Your task to perform on an android device: Open Reddit.com Image 0: 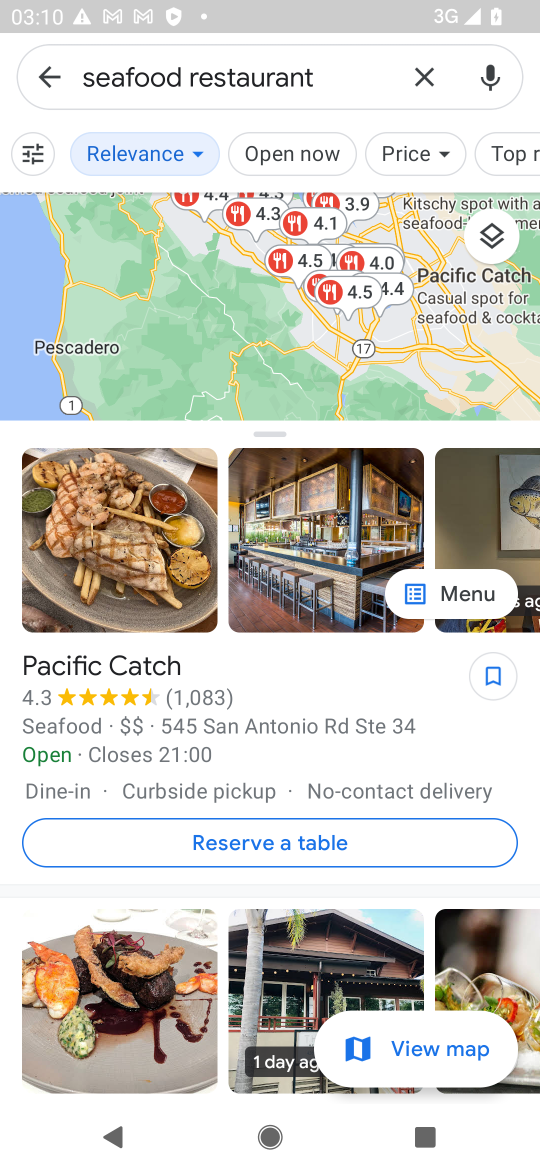
Step 0: press home button
Your task to perform on an android device: Open Reddit.com Image 1: 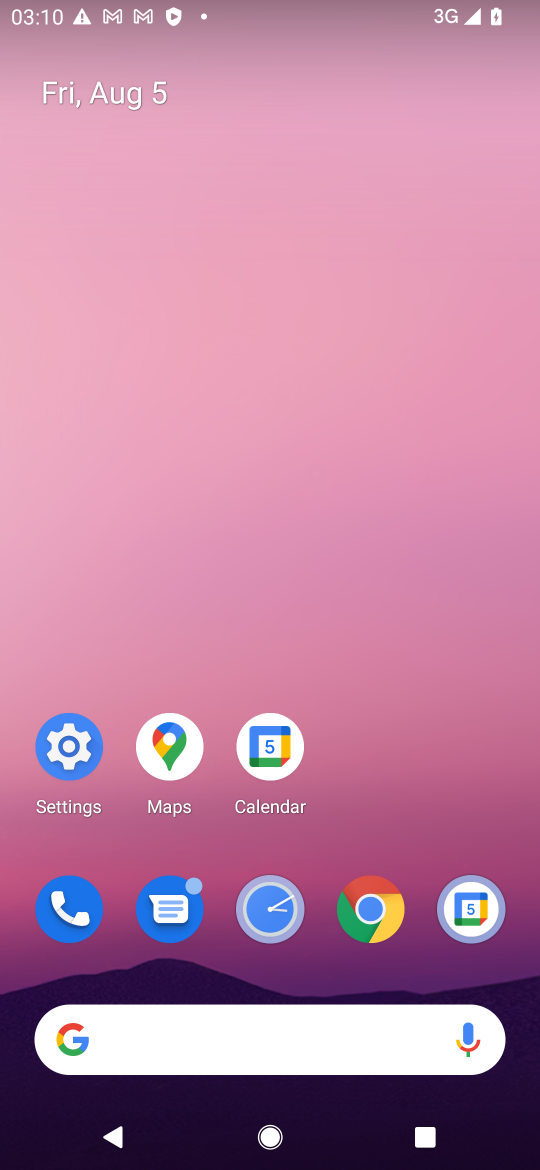
Step 1: click (364, 902)
Your task to perform on an android device: Open Reddit.com Image 2: 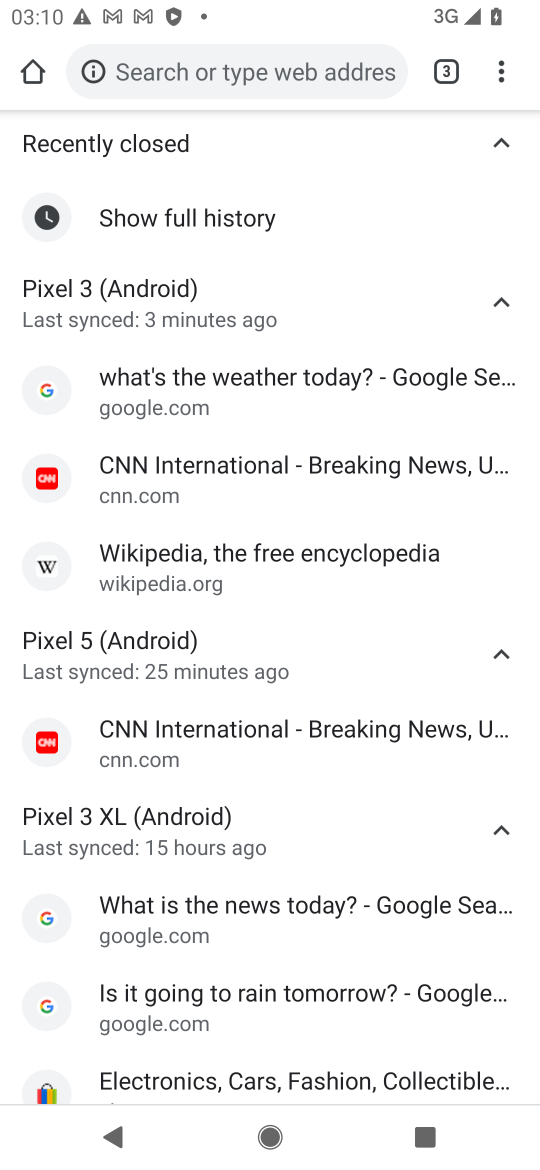
Step 2: click (511, 77)
Your task to perform on an android device: Open Reddit.com Image 3: 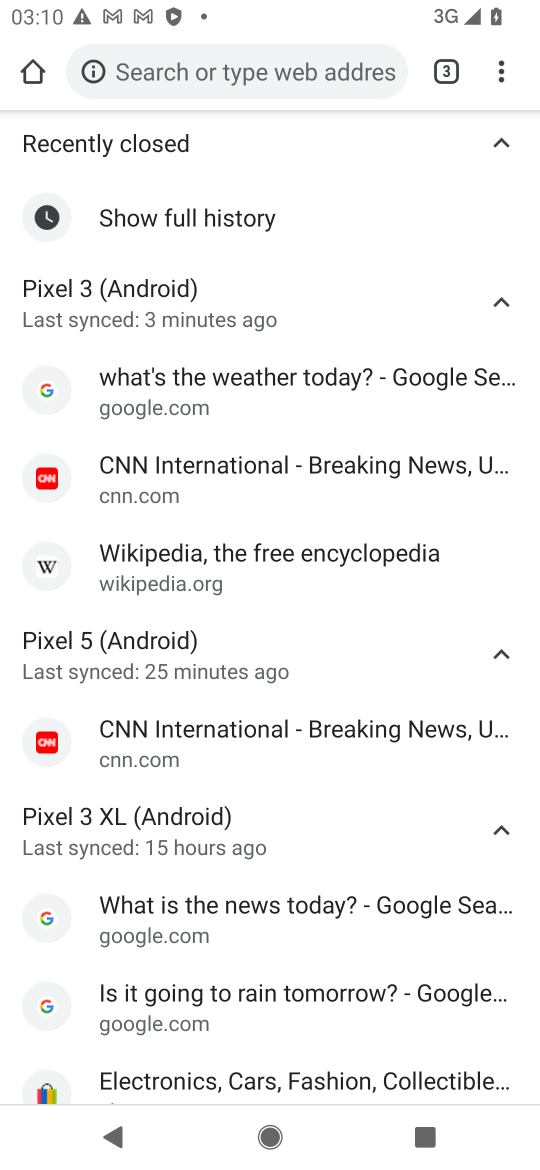
Step 3: click (498, 79)
Your task to perform on an android device: Open Reddit.com Image 4: 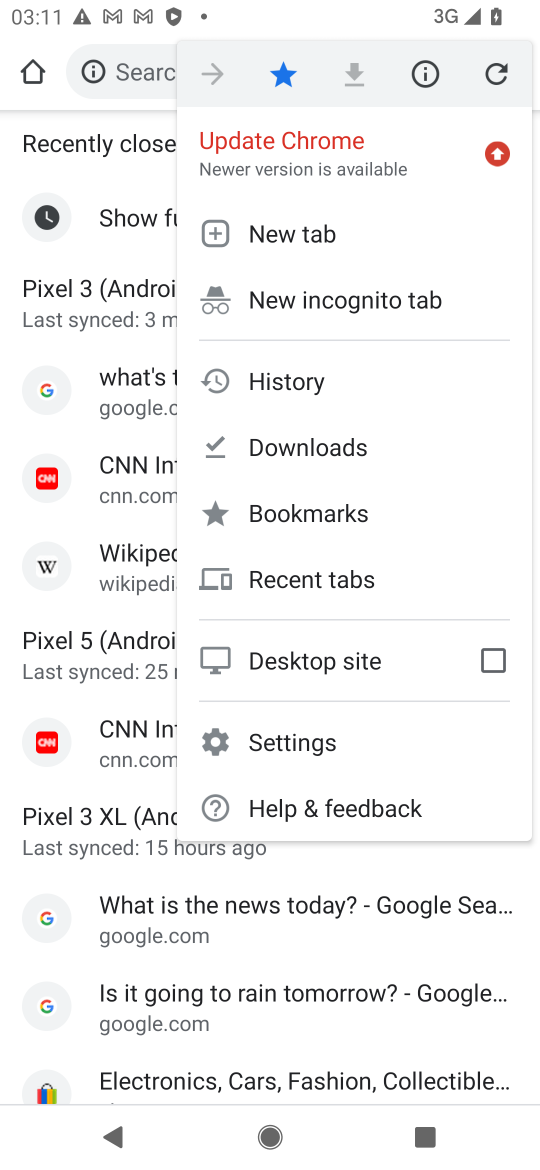
Step 4: click (262, 221)
Your task to perform on an android device: Open Reddit.com Image 5: 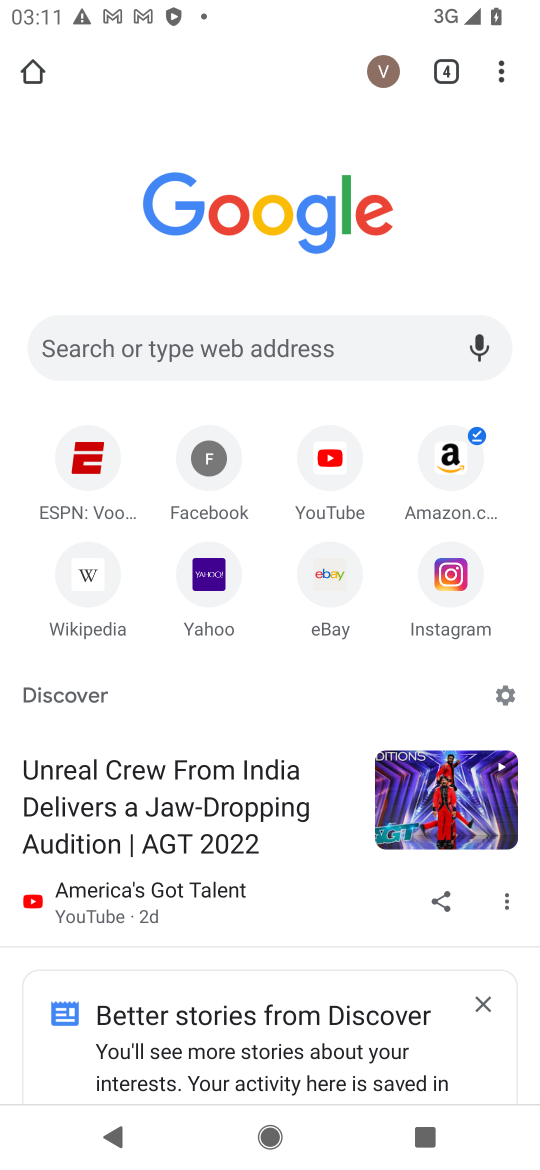
Step 5: click (259, 337)
Your task to perform on an android device: Open Reddit.com Image 6: 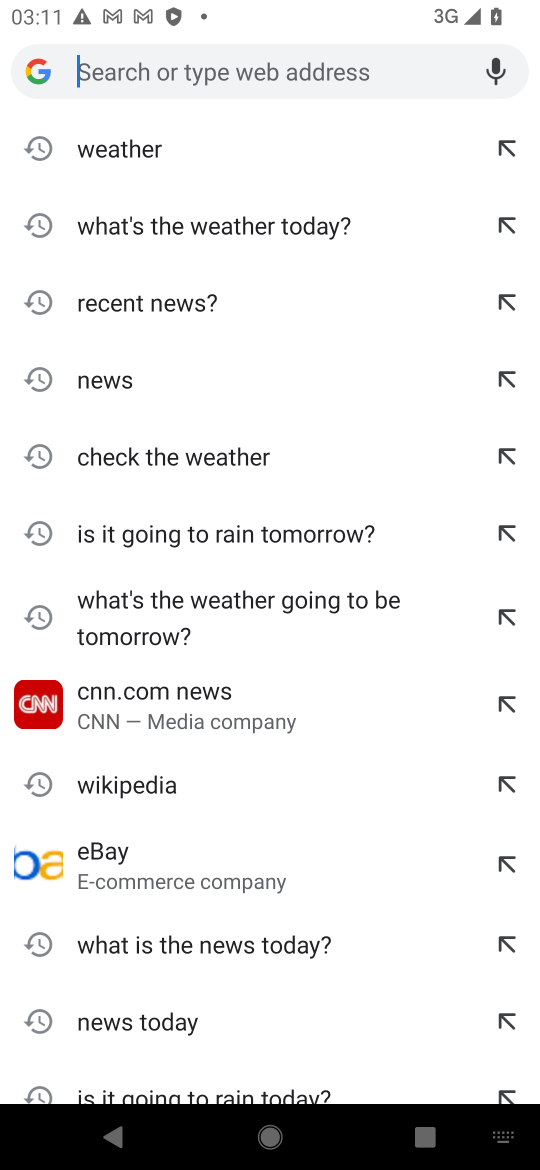
Step 6: type "reddit.com"
Your task to perform on an android device: Open Reddit.com Image 7: 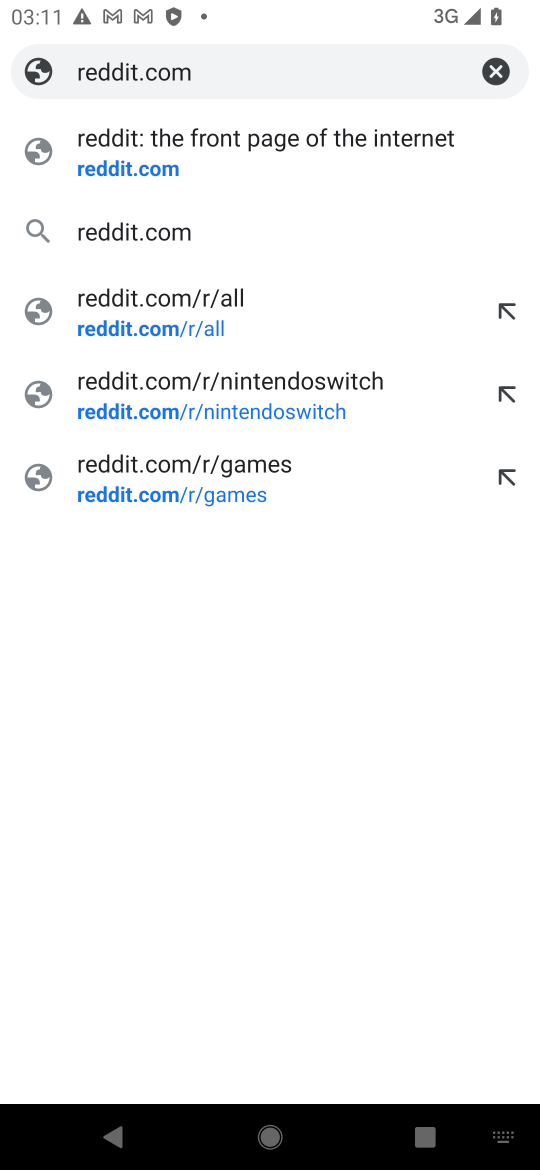
Step 7: click (110, 154)
Your task to perform on an android device: Open Reddit.com Image 8: 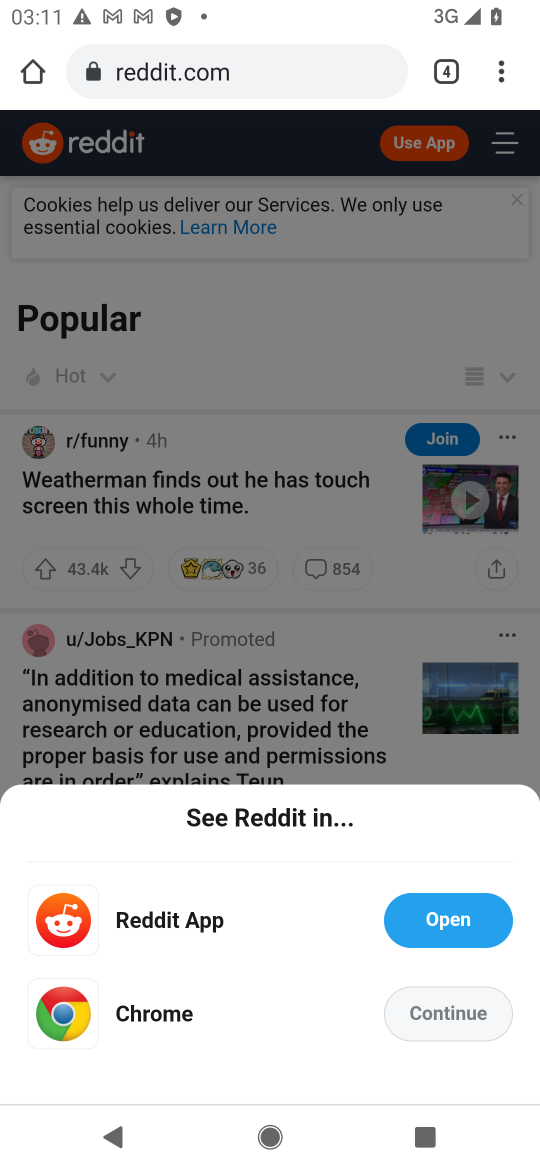
Step 8: click (450, 1027)
Your task to perform on an android device: Open Reddit.com Image 9: 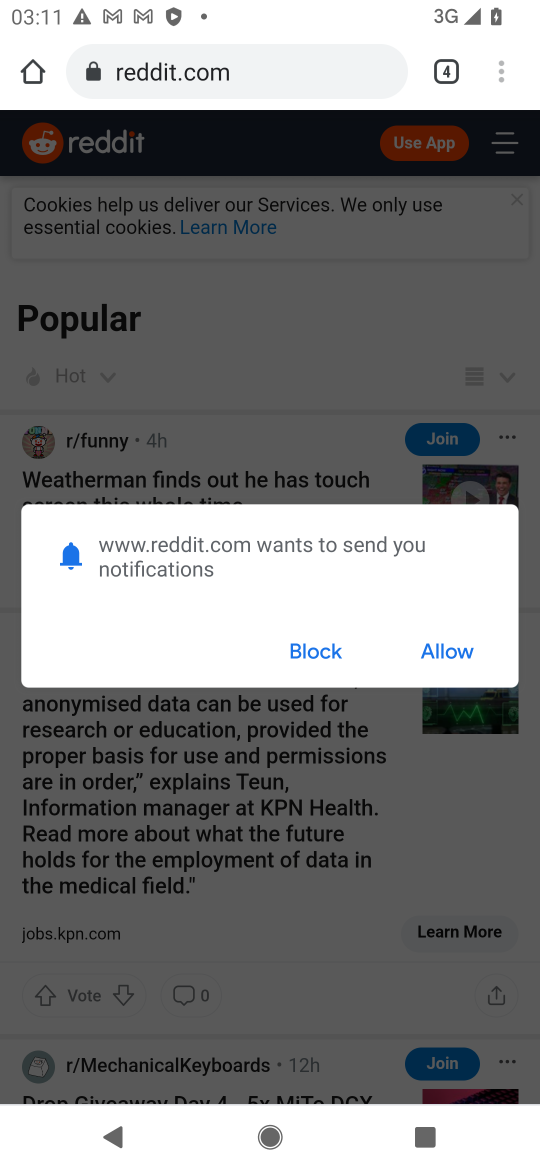
Step 9: click (438, 644)
Your task to perform on an android device: Open Reddit.com Image 10: 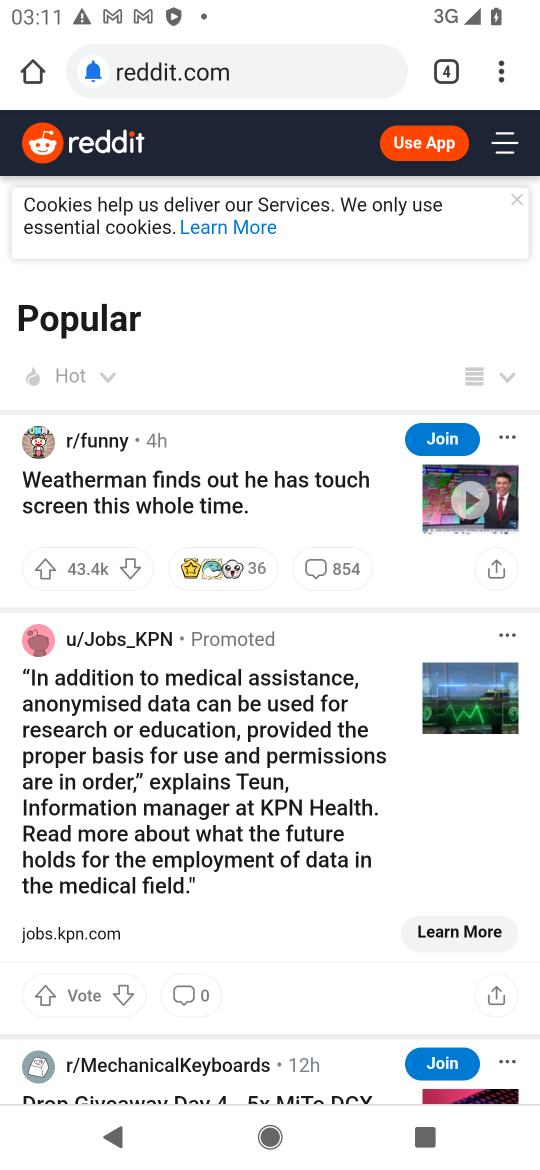
Step 10: task complete